Your task to perform on an android device: search for starred emails in the gmail app Image 0: 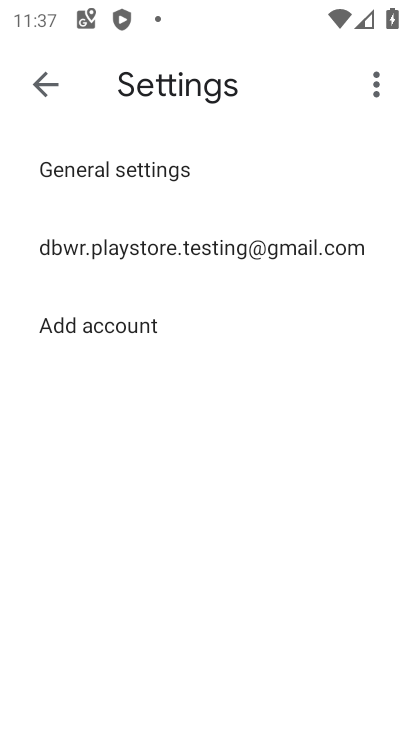
Step 0: press back button
Your task to perform on an android device: search for starred emails in the gmail app Image 1: 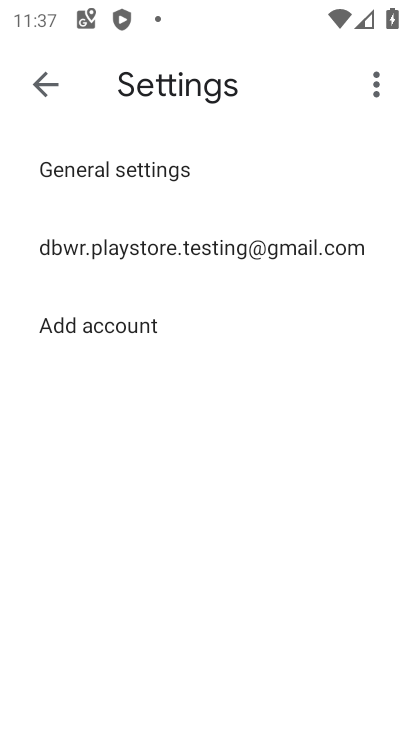
Step 1: press back button
Your task to perform on an android device: search for starred emails in the gmail app Image 2: 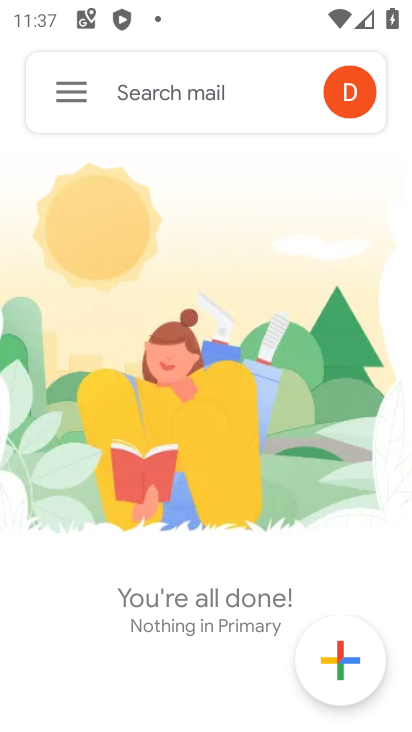
Step 2: click (43, 97)
Your task to perform on an android device: search for starred emails in the gmail app Image 3: 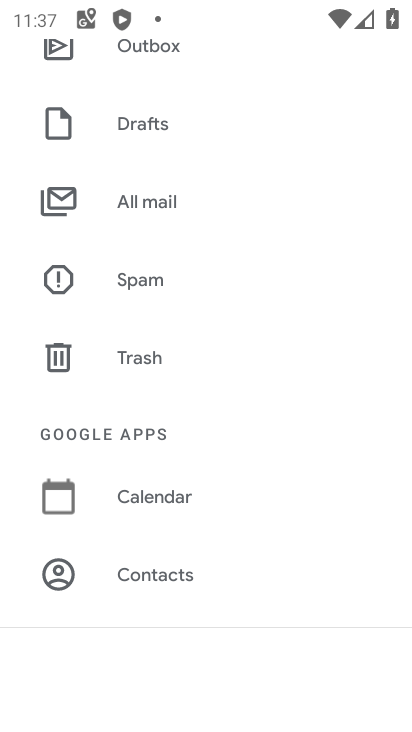
Step 3: drag from (197, 204) to (247, 604)
Your task to perform on an android device: search for starred emails in the gmail app Image 4: 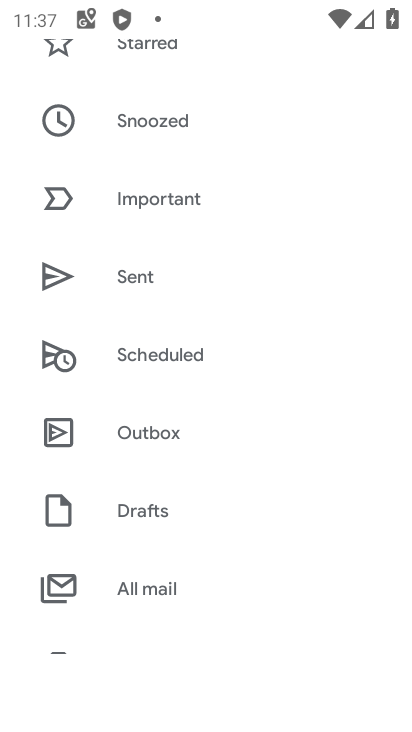
Step 4: drag from (221, 240) to (260, 649)
Your task to perform on an android device: search for starred emails in the gmail app Image 5: 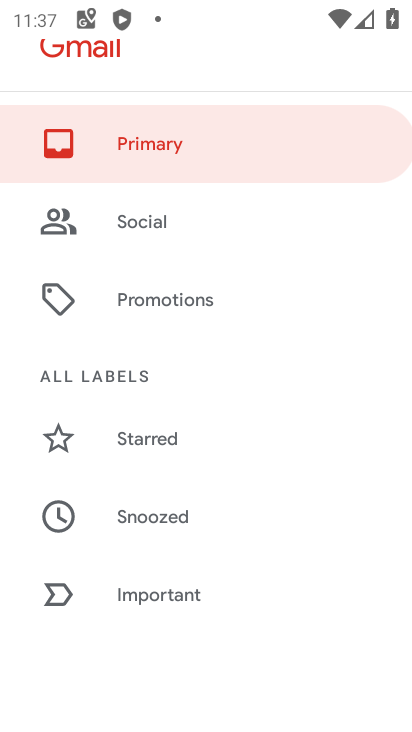
Step 5: click (208, 440)
Your task to perform on an android device: search for starred emails in the gmail app Image 6: 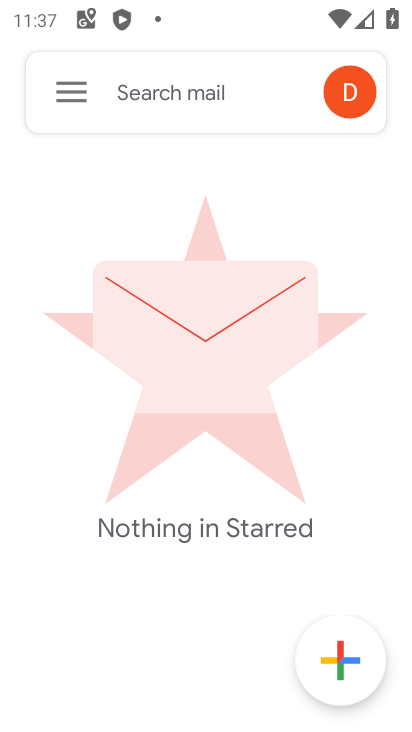
Step 6: task complete